Your task to perform on an android device: Clear the cart on walmart.com. Image 0: 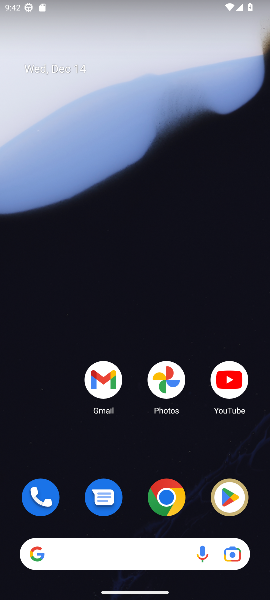
Step 0: click (165, 496)
Your task to perform on an android device: Clear the cart on walmart.com. Image 1: 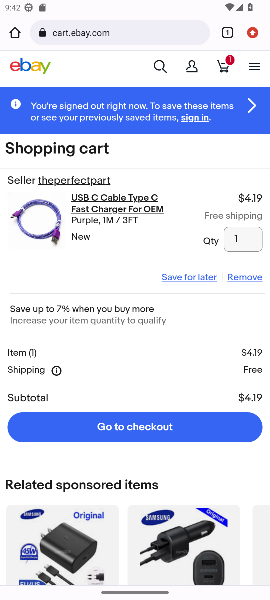
Step 1: click (74, 37)
Your task to perform on an android device: Clear the cart on walmart.com. Image 2: 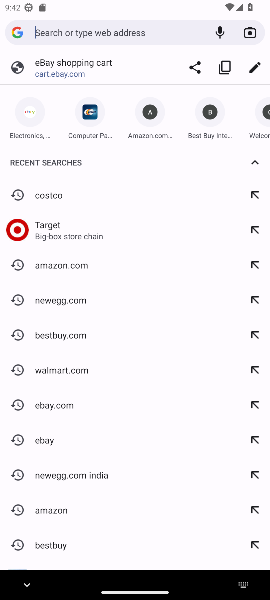
Step 2: type "walmart.com"
Your task to perform on an android device: Clear the cart on walmart.com. Image 3: 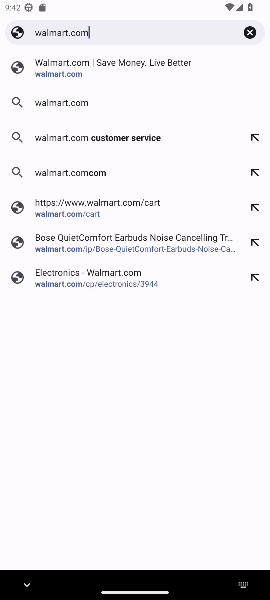
Step 3: press enter
Your task to perform on an android device: Clear the cart on walmart.com. Image 4: 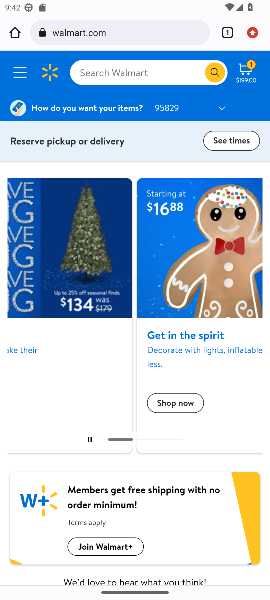
Step 4: click (244, 76)
Your task to perform on an android device: Clear the cart on walmart.com. Image 5: 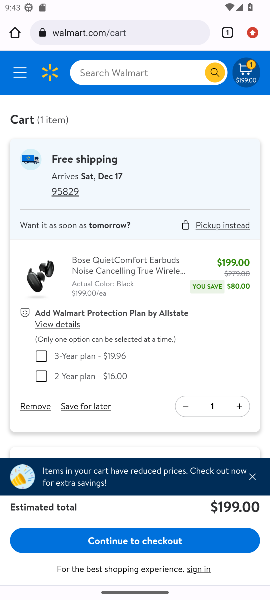
Step 5: click (35, 406)
Your task to perform on an android device: Clear the cart on walmart.com. Image 6: 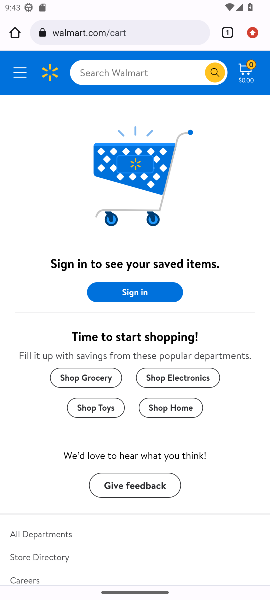
Step 6: task complete